Your task to perform on an android device: Open settings Image 0: 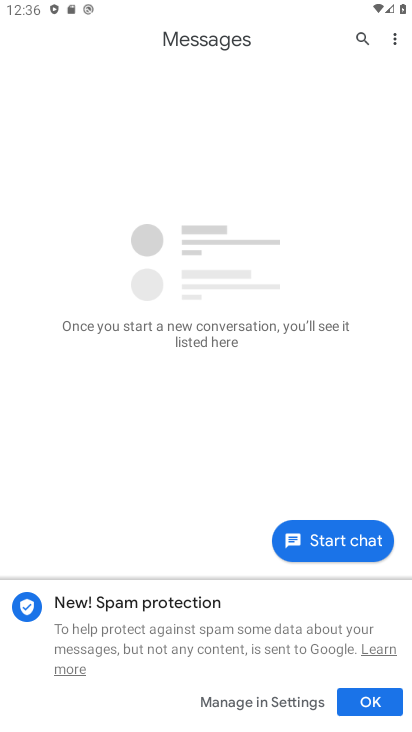
Step 0: press home button
Your task to perform on an android device: Open settings Image 1: 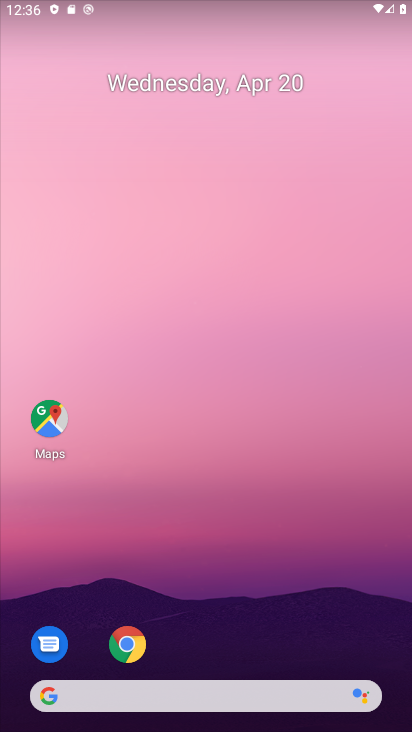
Step 1: drag from (284, 643) to (194, 5)
Your task to perform on an android device: Open settings Image 2: 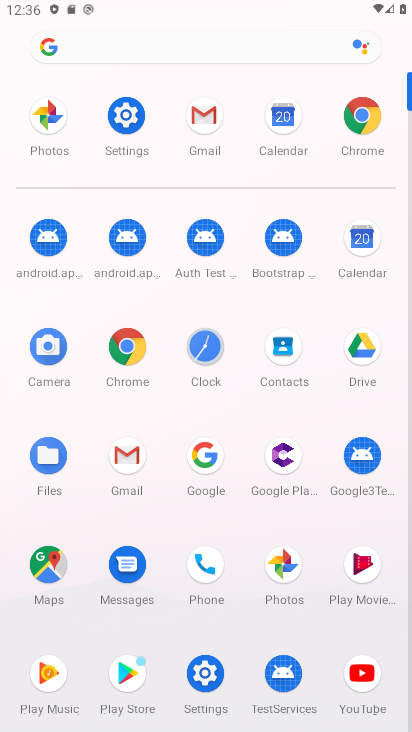
Step 2: click (123, 111)
Your task to perform on an android device: Open settings Image 3: 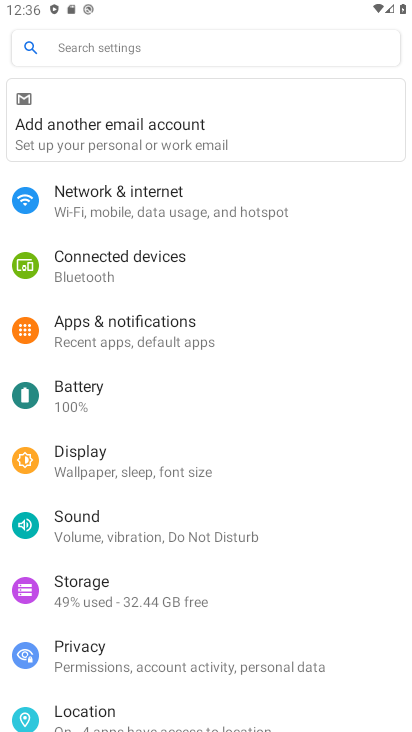
Step 3: task complete